Your task to perform on an android device: find which apps use the phone's location Image 0: 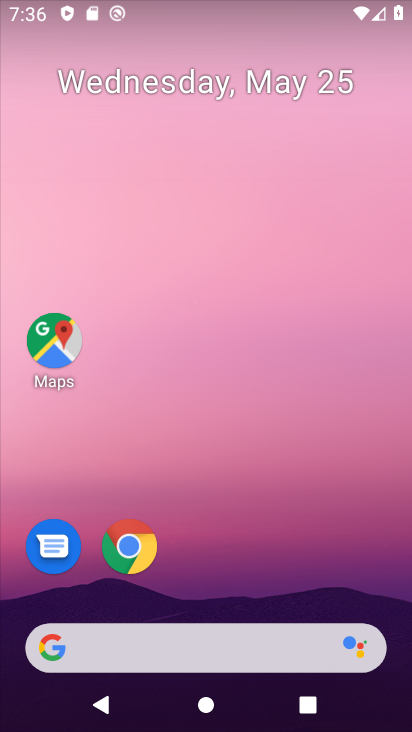
Step 0: drag from (252, 570) to (220, 144)
Your task to perform on an android device: find which apps use the phone's location Image 1: 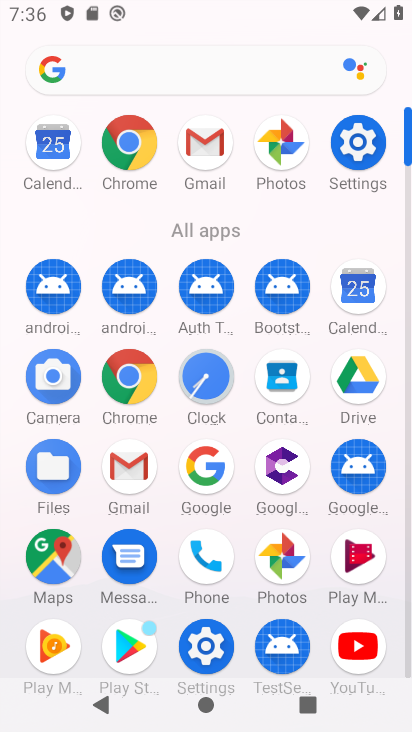
Step 1: click (352, 148)
Your task to perform on an android device: find which apps use the phone's location Image 2: 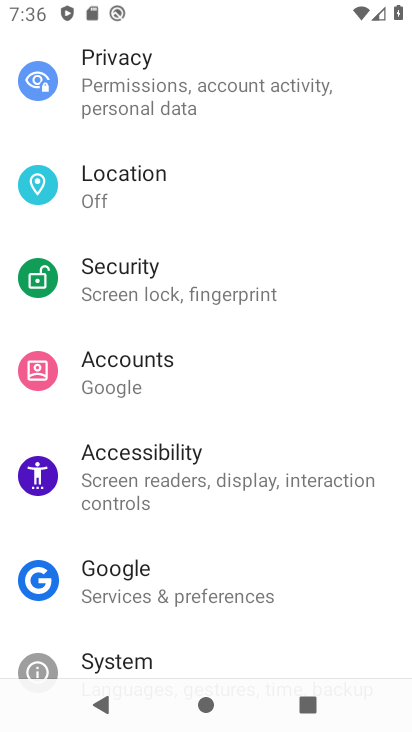
Step 2: click (82, 194)
Your task to perform on an android device: find which apps use the phone's location Image 3: 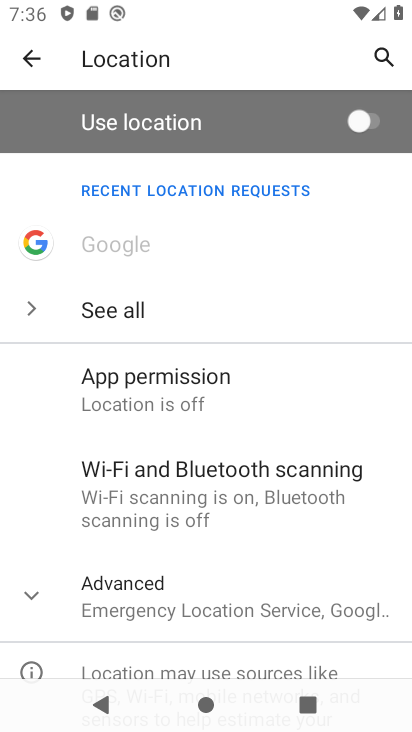
Step 3: click (226, 384)
Your task to perform on an android device: find which apps use the phone's location Image 4: 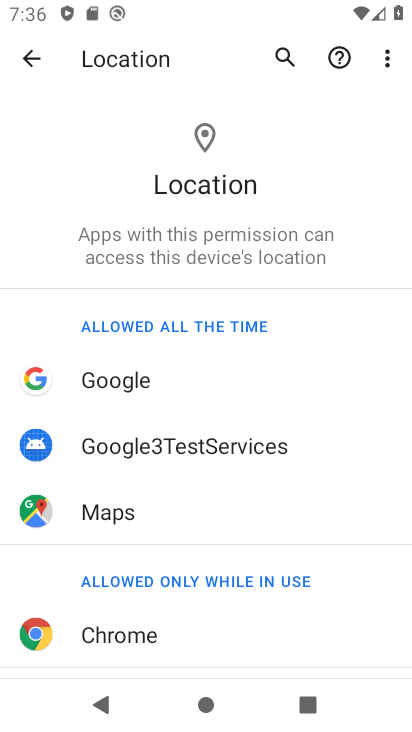
Step 4: task complete